Your task to perform on an android device: Open maps Image 0: 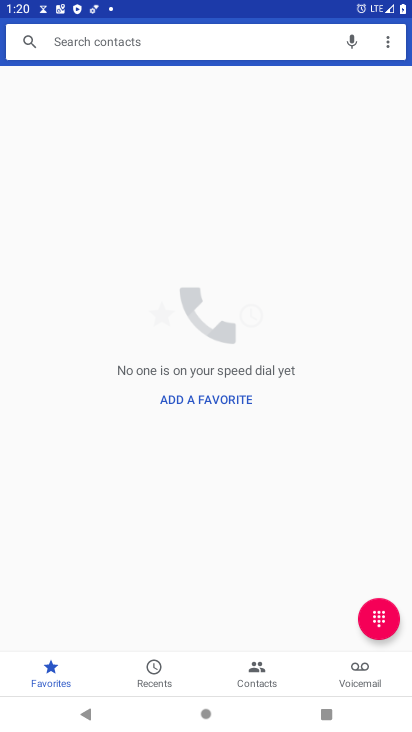
Step 0: click (100, 637)
Your task to perform on an android device: Open maps Image 1: 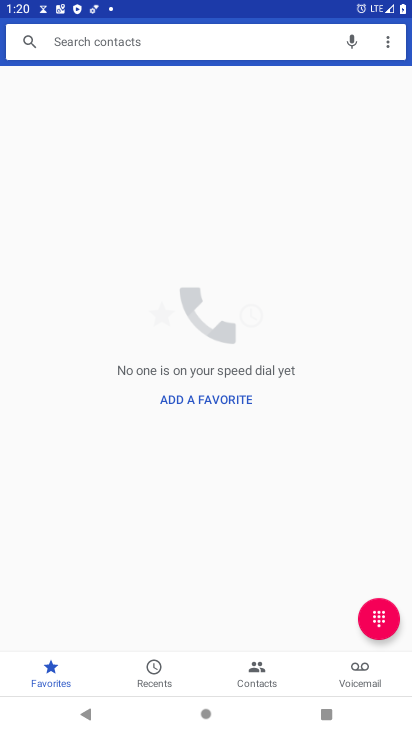
Step 1: press home button
Your task to perform on an android device: Open maps Image 2: 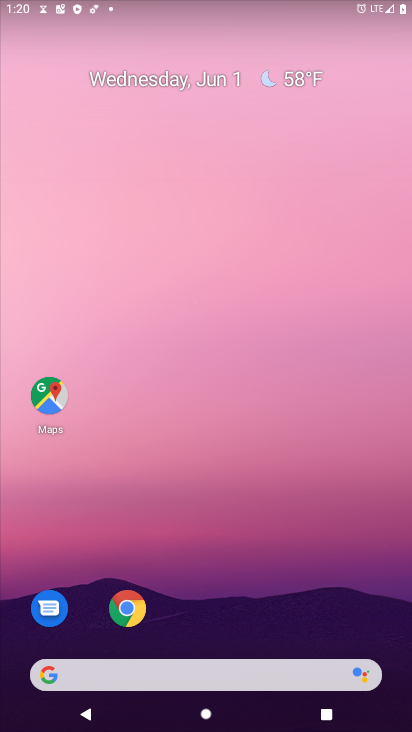
Step 2: click (45, 390)
Your task to perform on an android device: Open maps Image 3: 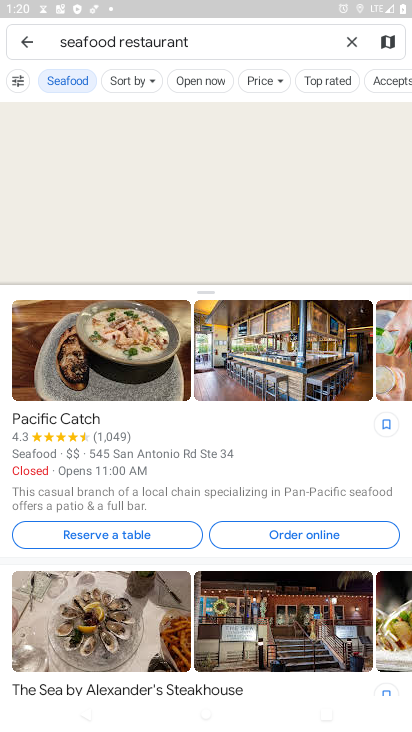
Step 3: task complete